Your task to perform on an android device: find which apps use the phone's location Image 0: 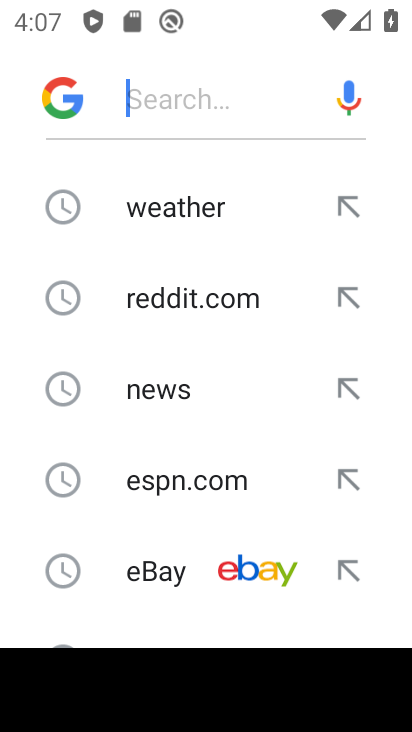
Step 0: press home button
Your task to perform on an android device: find which apps use the phone's location Image 1: 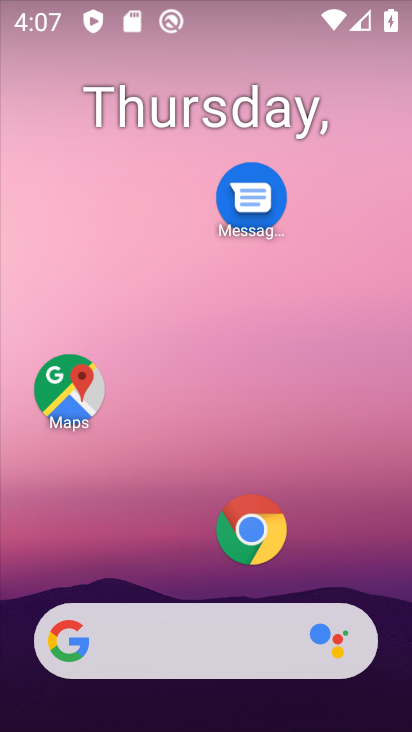
Step 1: click (68, 386)
Your task to perform on an android device: find which apps use the phone's location Image 2: 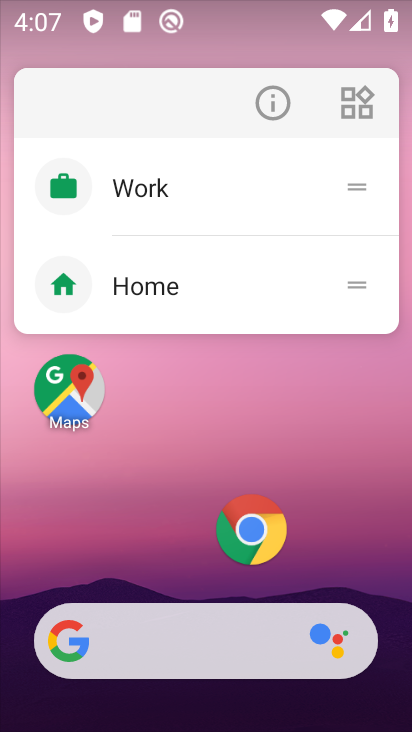
Step 2: click (68, 386)
Your task to perform on an android device: find which apps use the phone's location Image 3: 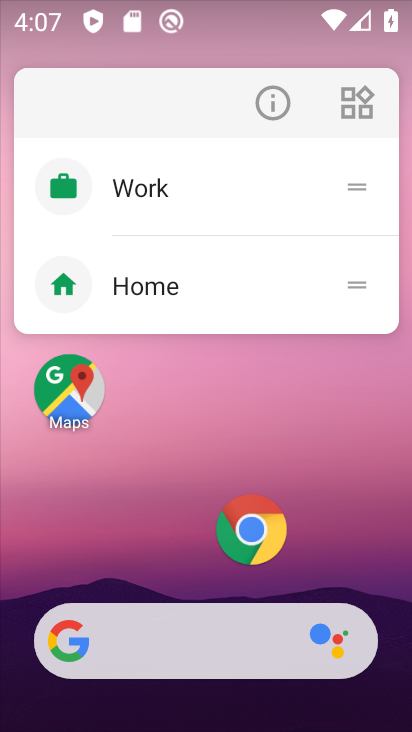
Step 3: click (77, 390)
Your task to perform on an android device: find which apps use the phone's location Image 4: 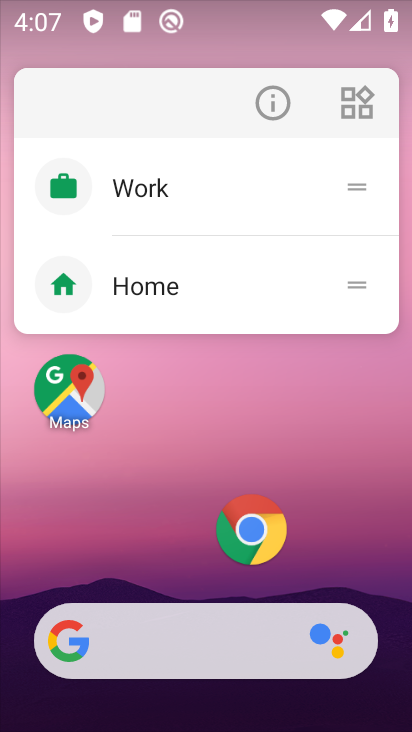
Step 4: click (194, 573)
Your task to perform on an android device: find which apps use the phone's location Image 5: 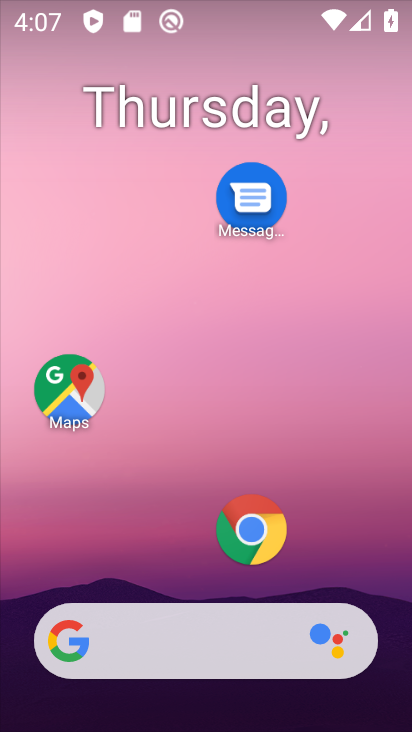
Step 5: drag from (209, 498) to (328, 45)
Your task to perform on an android device: find which apps use the phone's location Image 6: 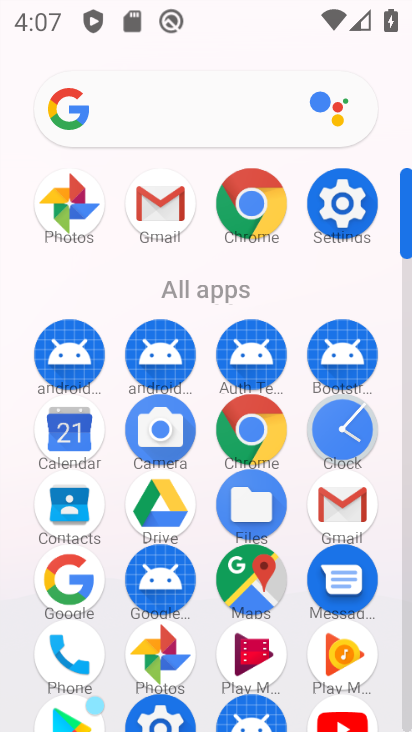
Step 6: click (354, 194)
Your task to perform on an android device: find which apps use the phone's location Image 7: 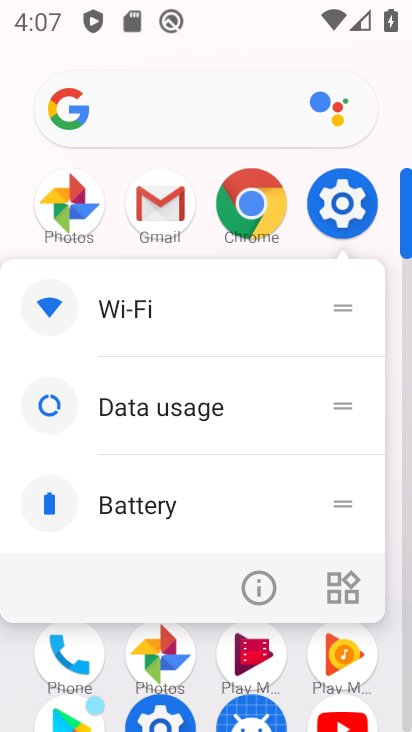
Step 7: click (325, 193)
Your task to perform on an android device: find which apps use the phone's location Image 8: 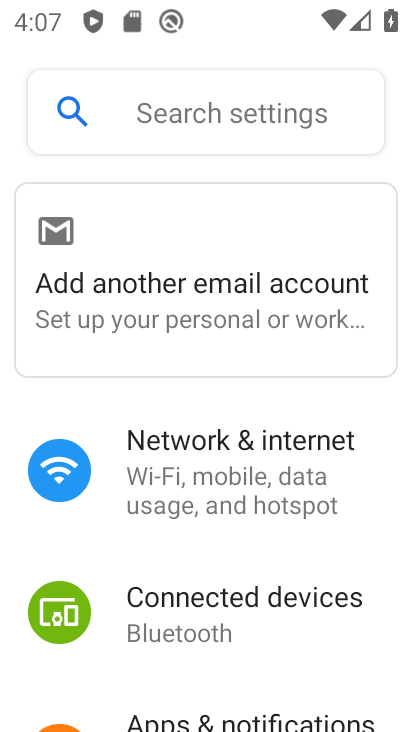
Step 8: drag from (280, 600) to (360, 48)
Your task to perform on an android device: find which apps use the phone's location Image 9: 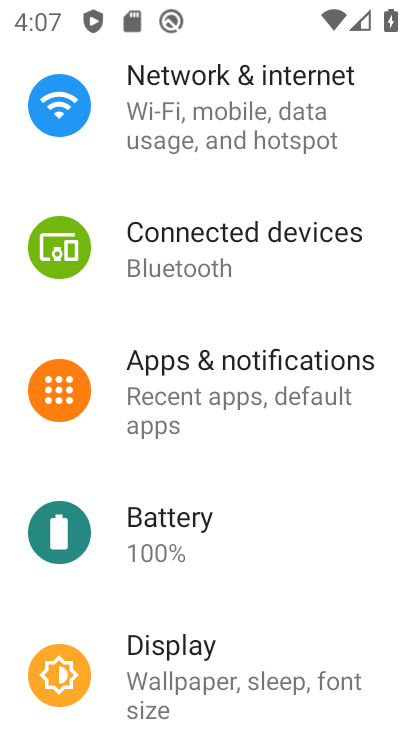
Step 9: drag from (253, 549) to (349, 86)
Your task to perform on an android device: find which apps use the phone's location Image 10: 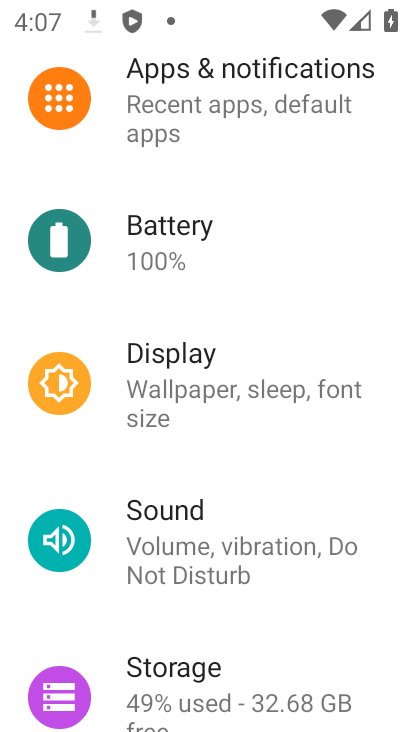
Step 10: drag from (189, 587) to (328, 83)
Your task to perform on an android device: find which apps use the phone's location Image 11: 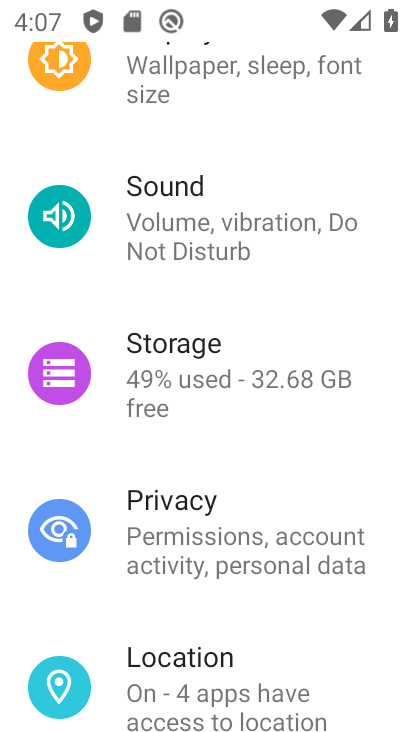
Step 11: click (159, 687)
Your task to perform on an android device: find which apps use the phone's location Image 12: 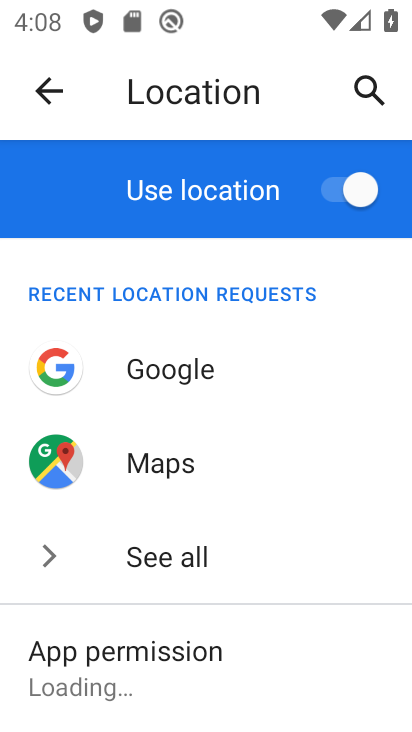
Step 12: click (174, 670)
Your task to perform on an android device: find which apps use the phone's location Image 13: 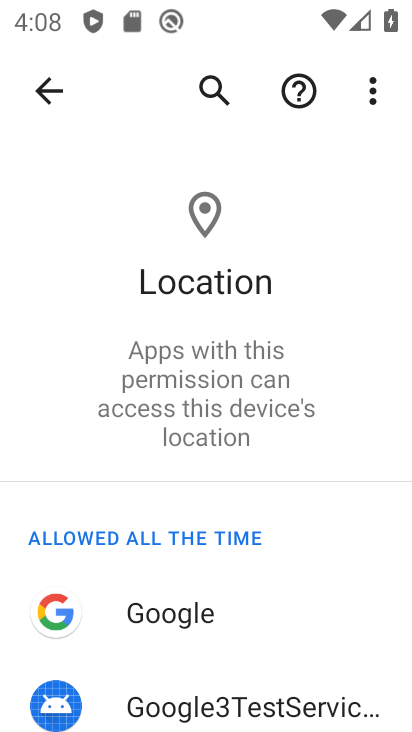
Step 13: task complete